Your task to perform on an android device: open a bookmark in the chrome app Image 0: 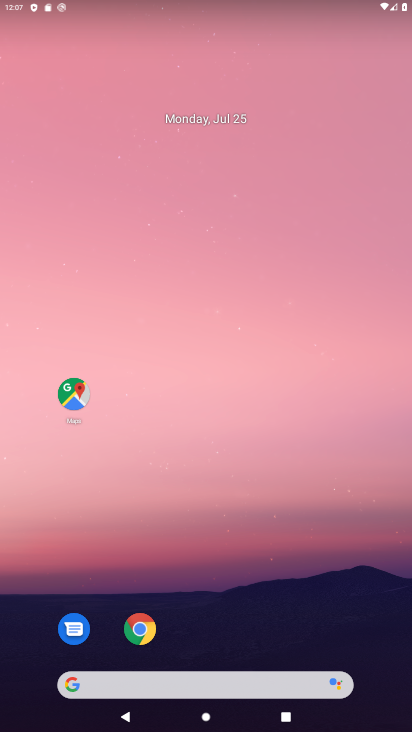
Step 0: drag from (265, 636) to (182, 113)
Your task to perform on an android device: open a bookmark in the chrome app Image 1: 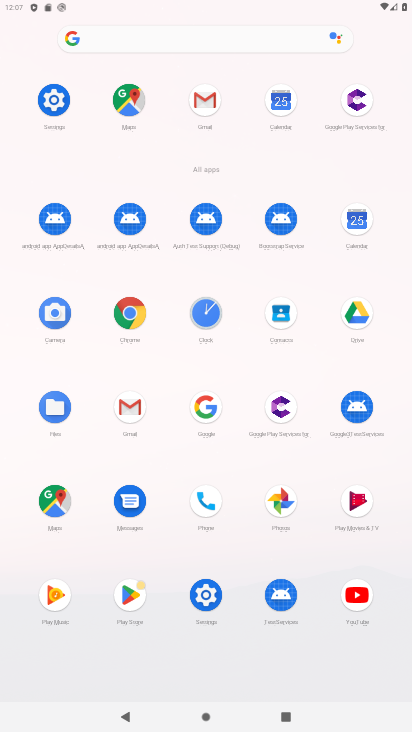
Step 1: click (136, 309)
Your task to perform on an android device: open a bookmark in the chrome app Image 2: 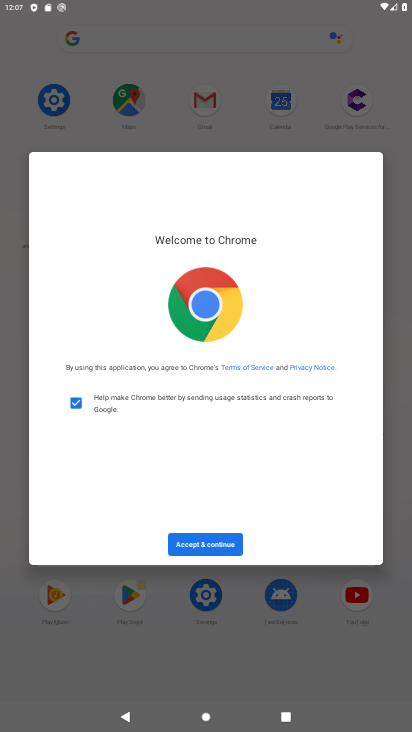
Step 2: click (222, 548)
Your task to perform on an android device: open a bookmark in the chrome app Image 3: 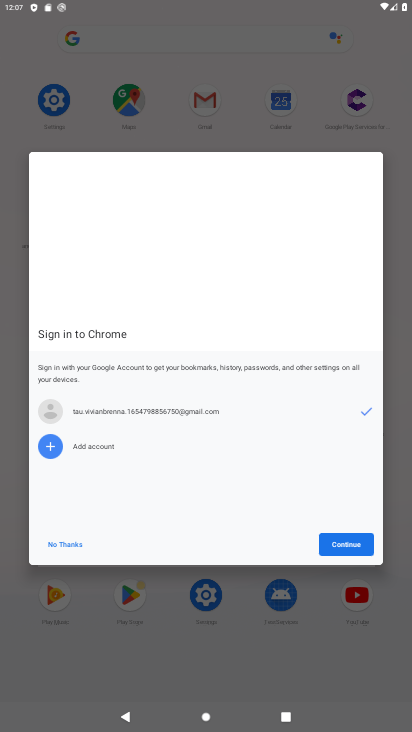
Step 3: click (345, 542)
Your task to perform on an android device: open a bookmark in the chrome app Image 4: 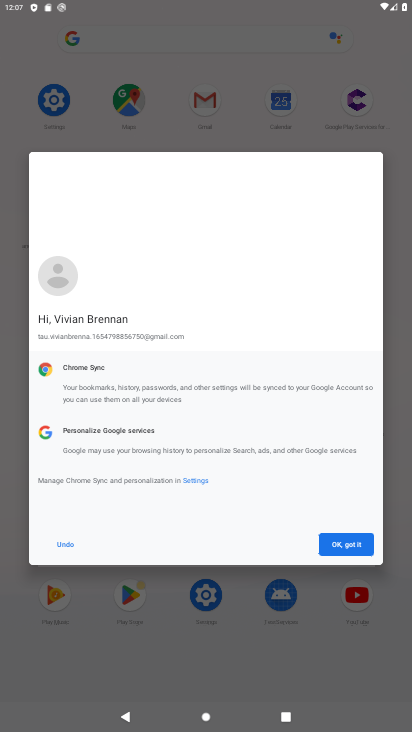
Step 4: click (345, 542)
Your task to perform on an android device: open a bookmark in the chrome app Image 5: 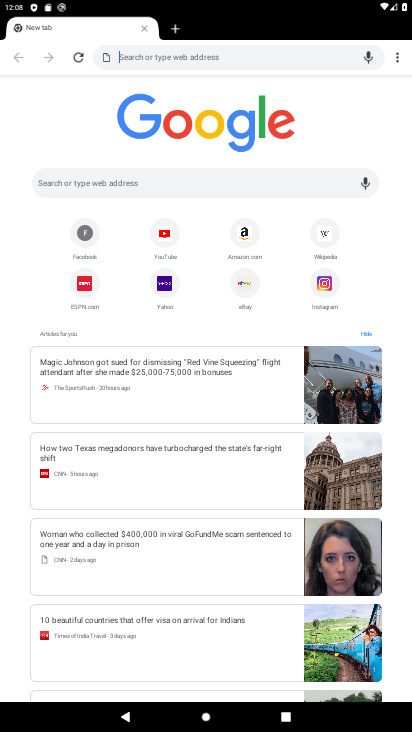
Step 5: click (399, 57)
Your task to perform on an android device: open a bookmark in the chrome app Image 6: 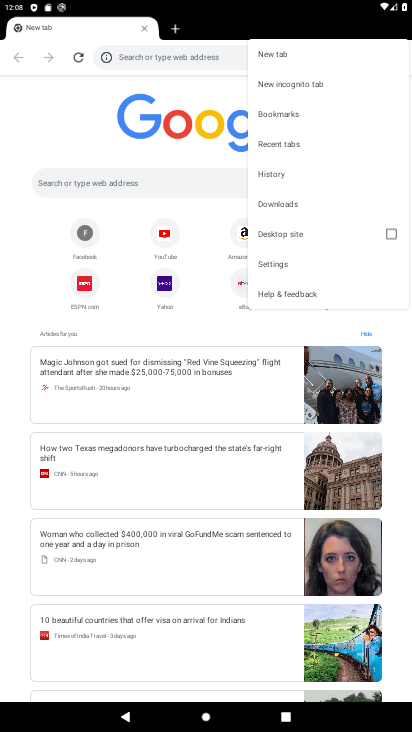
Step 6: click (275, 115)
Your task to perform on an android device: open a bookmark in the chrome app Image 7: 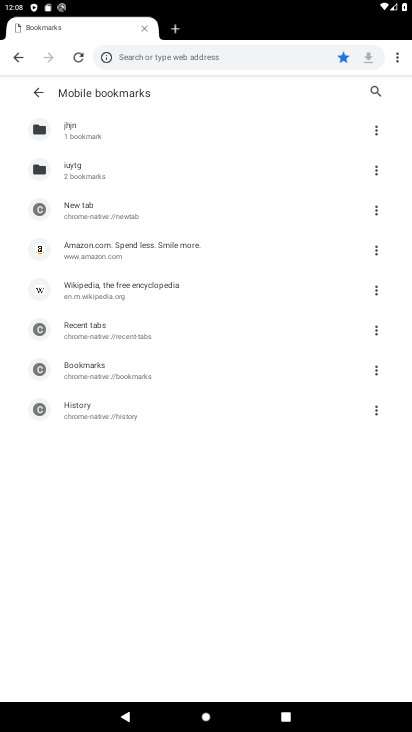
Step 7: click (207, 251)
Your task to perform on an android device: open a bookmark in the chrome app Image 8: 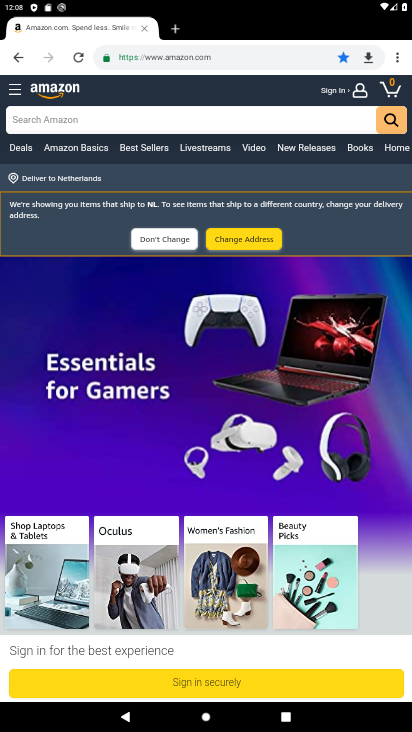
Step 8: task complete